Your task to perform on an android device: check google app version Image 0: 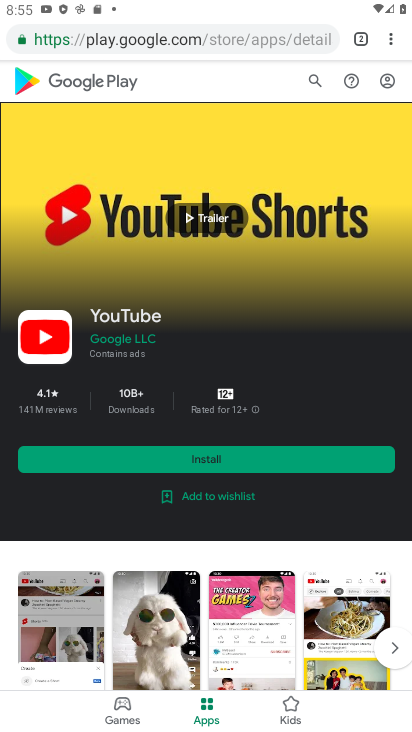
Step 0: press back button
Your task to perform on an android device: check google app version Image 1: 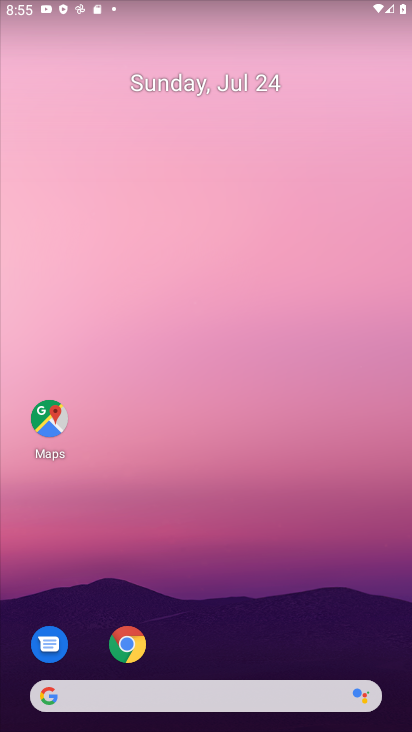
Step 1: drag from (245, 528) to (244, 76)
Your task to perform on an android device: check google app version Image 2: 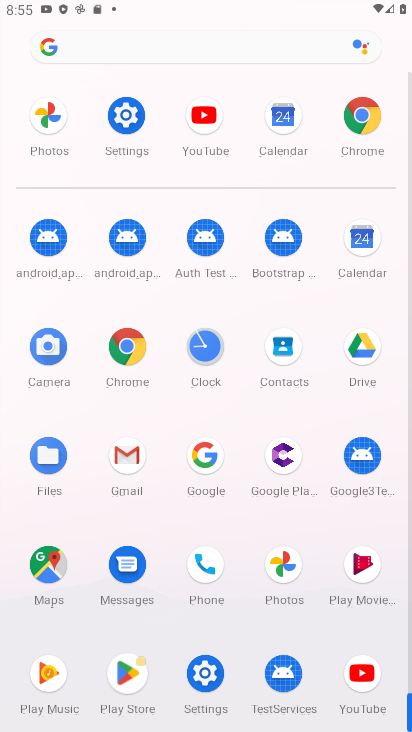
Step 2: click (202, 458)
Your task to perform on an android device: check google app version Image 3: 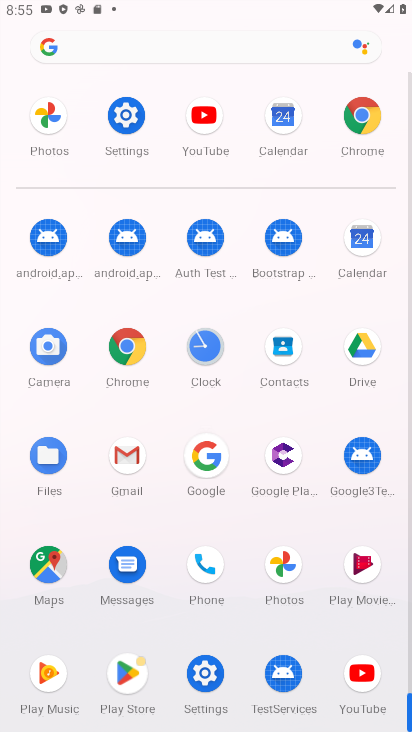
Step 3: click (203, 459)
Your task to perform on an android device: check google app version Image 4: 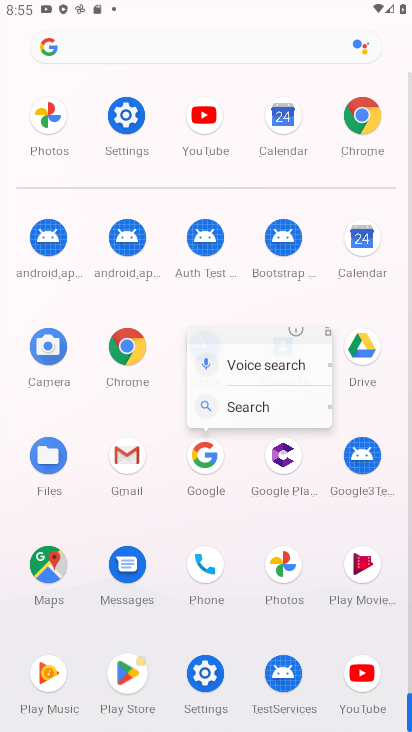
Step 4: click (203, 459)
Your task to perform on an android device: check google app version Image 5: 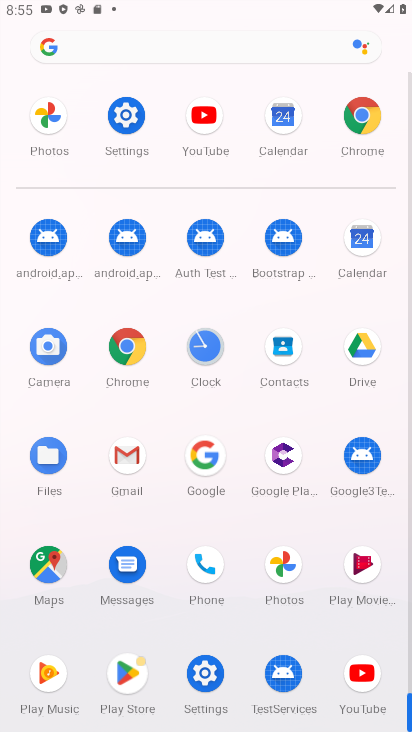
Step 5: click (203, 460)
Your task to perform on an android device: check google app version Image 6: 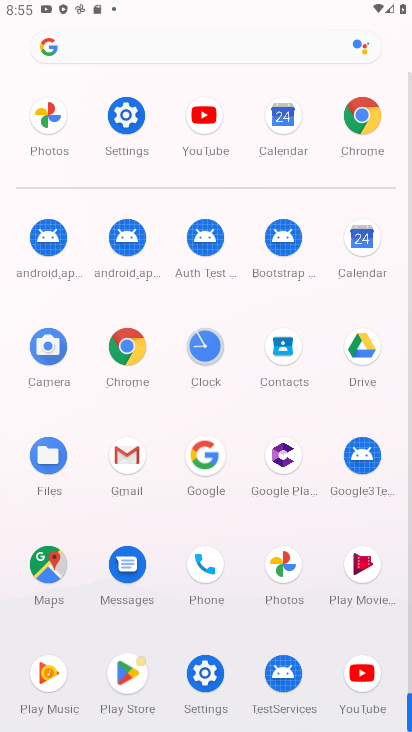
Step 6: click (200, 458)
Your task to perform on an android device: check google app version Image 7: 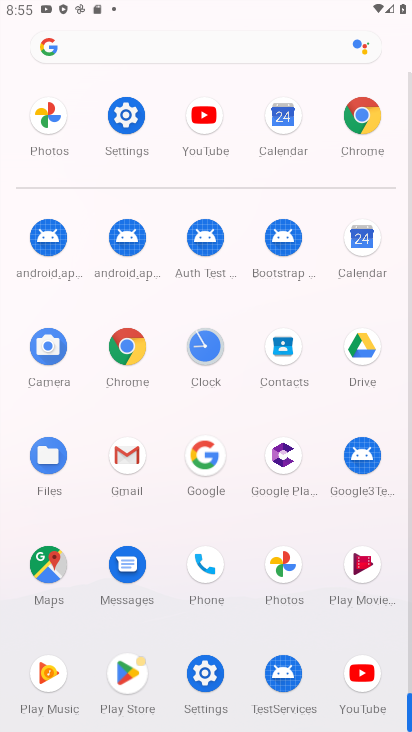
Step 7: click (200, 454)
Your task to perform on an android device: check google app version Image 8: 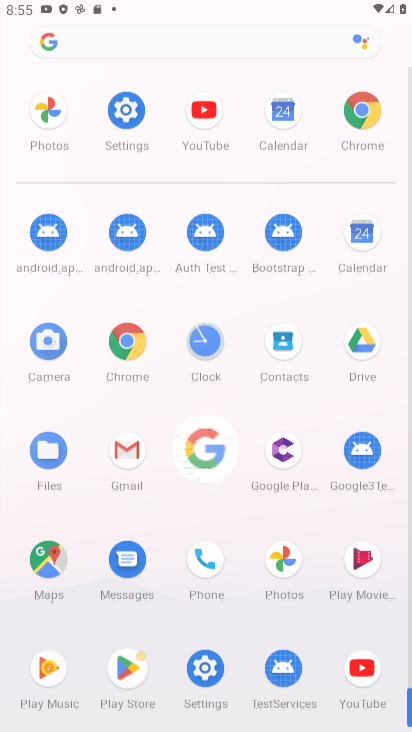
Step 8: click (199, 448)
Your task to perform on an android device: check google app version Image 9: 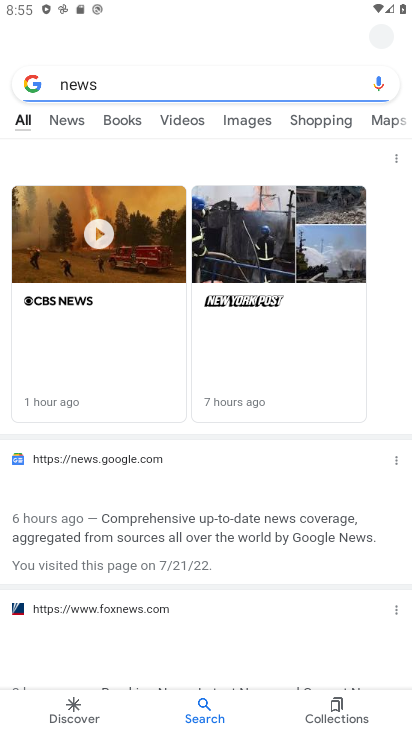
Step 9: click (230, 407)
Your task to perform on an android device: check google app version Image 10: 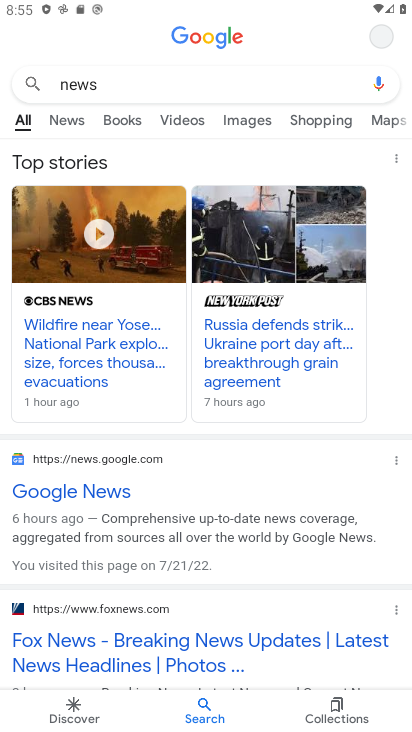
Step 10: click (269, 378)
Your task to perform on an android device: check google app version Image 11: 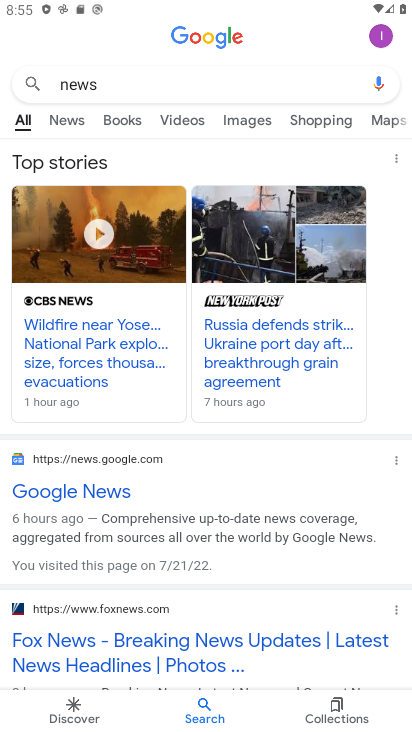
Step 11: drag from (313, 248) to (282, 495)
Your task to perform on an android device: check google app version Image 12: 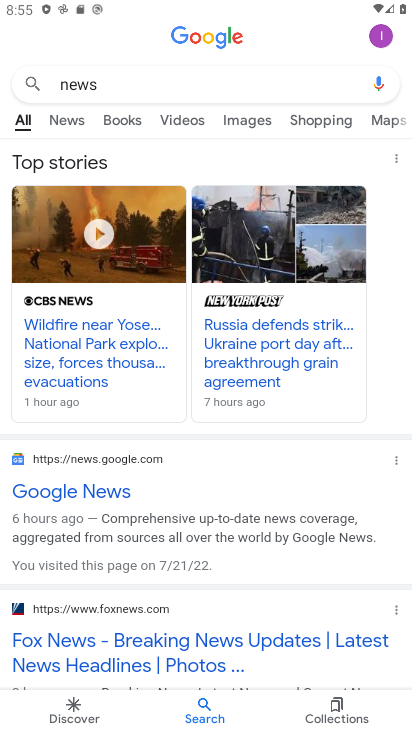
Step 12: drag from (335, 210) to (259, 533)
Your task to perform on an android device: check google app version Image 13: 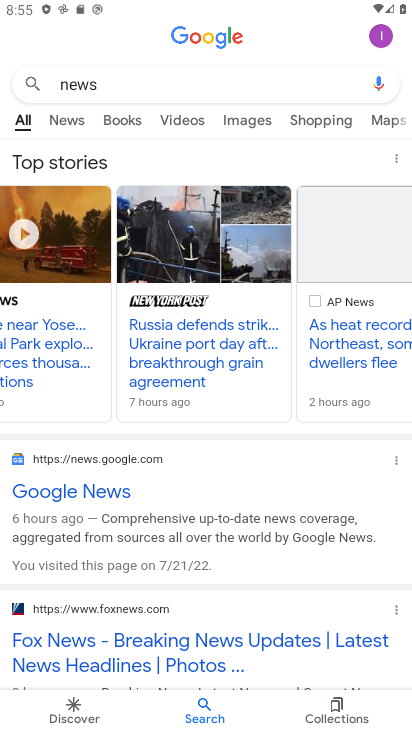
Step 13: drag from (301, 232) to (287, 491)
Your task to perform on an android device: check google app version Image 14: 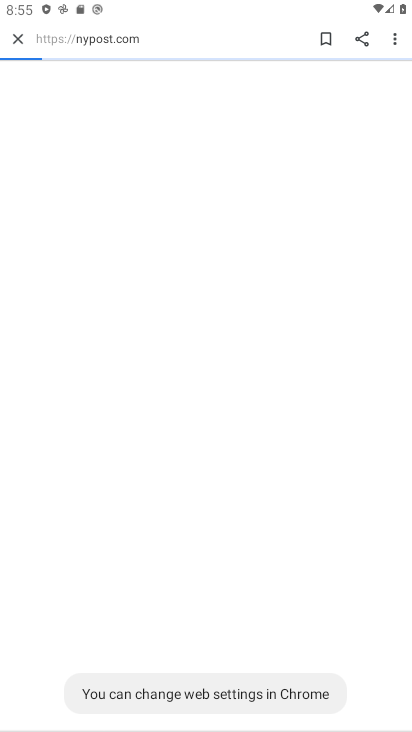
Step 14: click (378, 36)
Your task to perform on an android device: check google app version Image 15: 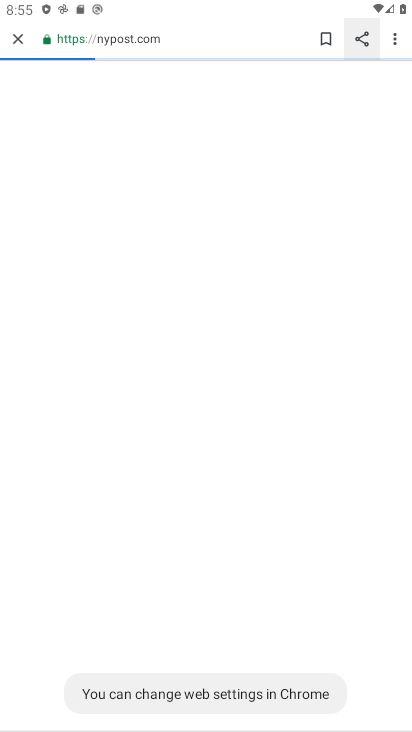
Step 15: drag from (293, 176) to (292, 285)
Your task to perform on an android device: check google app version Image 16: 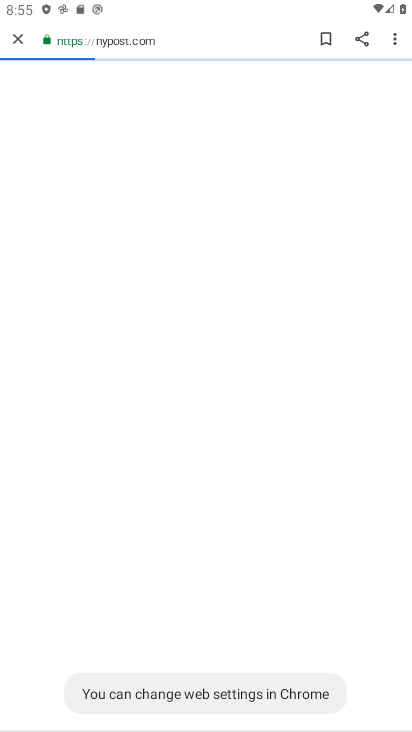
Step 16: click (296, 282)
Your task to perform on an android device: check google app version Image 17: 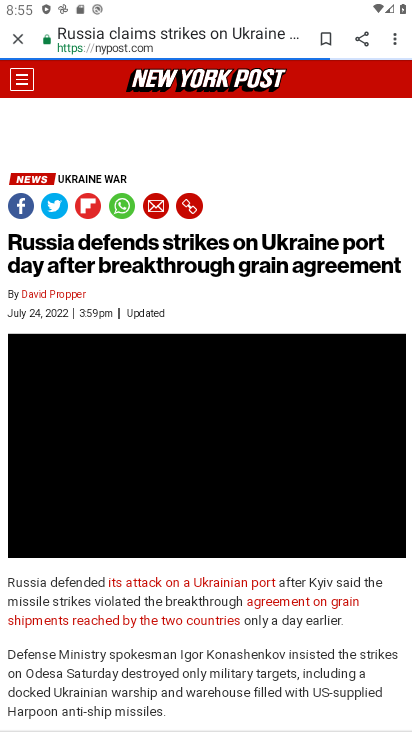
Step 17: click (390, 38)
Your task to perform on an android device: check google app version Image 18: 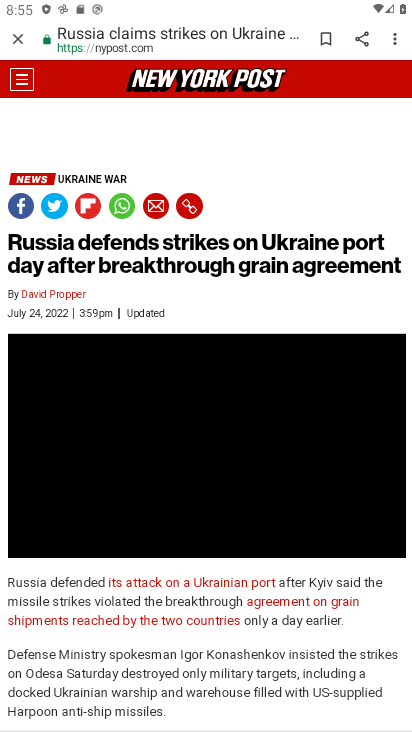
Step 18: task complete